Your task to perform on an android device: clear all cookies in the chrome app Image 0: 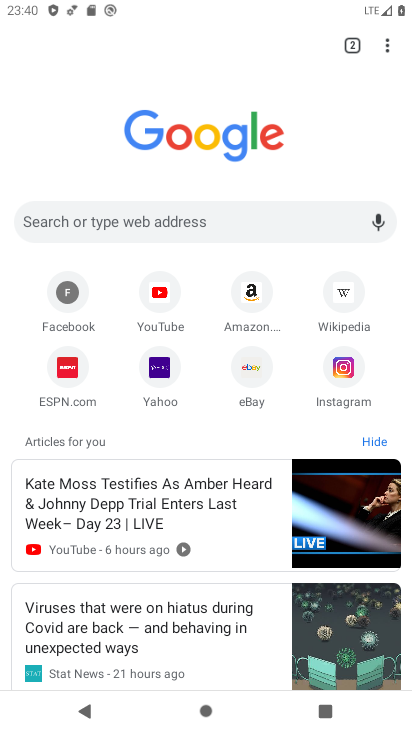
Step 0: click (389, 44)
Your task to perform on an android device: clear all cookies in the chrome app Image 1: 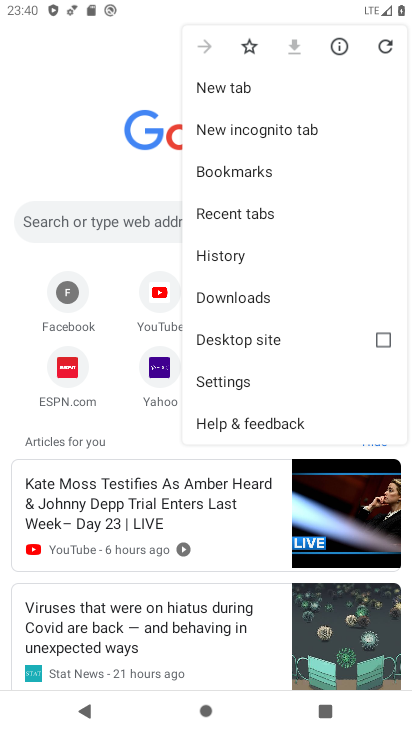
Step 1: click (232, 381)
Your task to perform on an android device: clear all cookies in the chrome app Image 2: 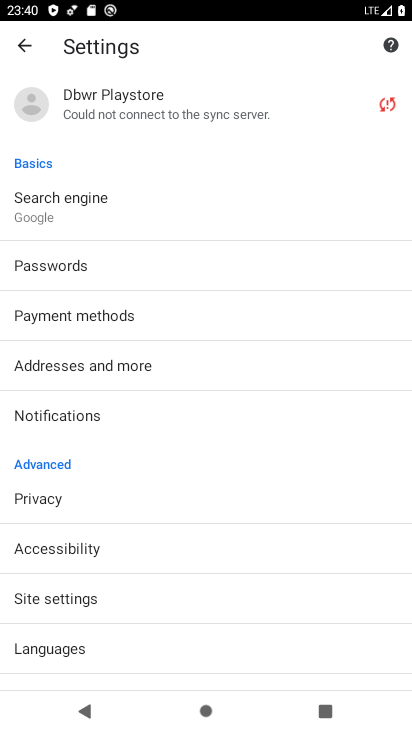
Step 2: click (45, 491)
Your task to perform on an android device: clear all cookies in the chrome app Image 3: 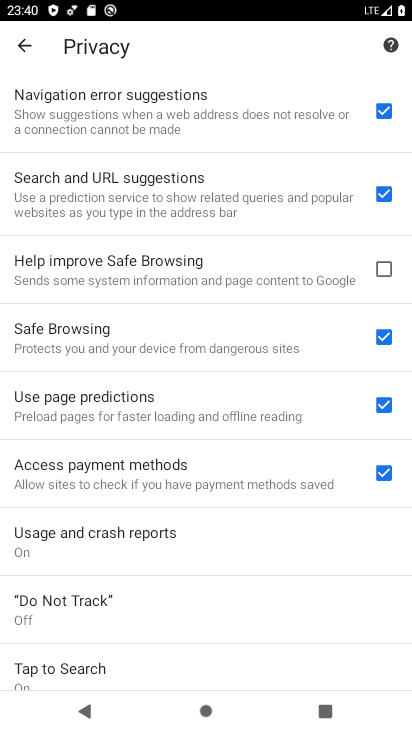
Step 3: drag from (247, 577) to (205, 65)
Your task to perform on an android device: clear all cookies in the chrome app Image 4: 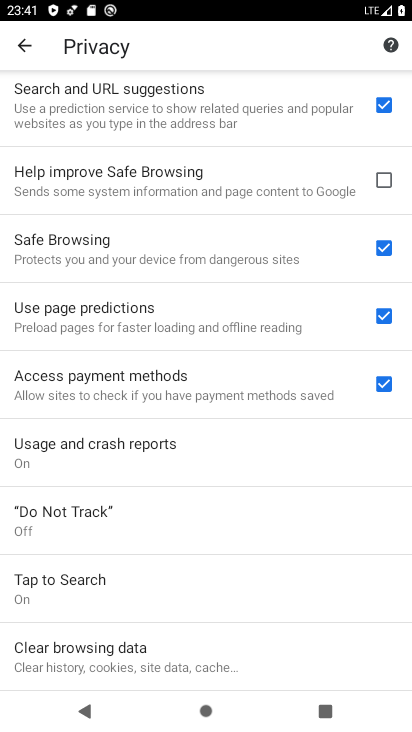
Step 4: click (81, 649)
Your task to perform on an android device: clear all cookies in the chrome app Image 5: 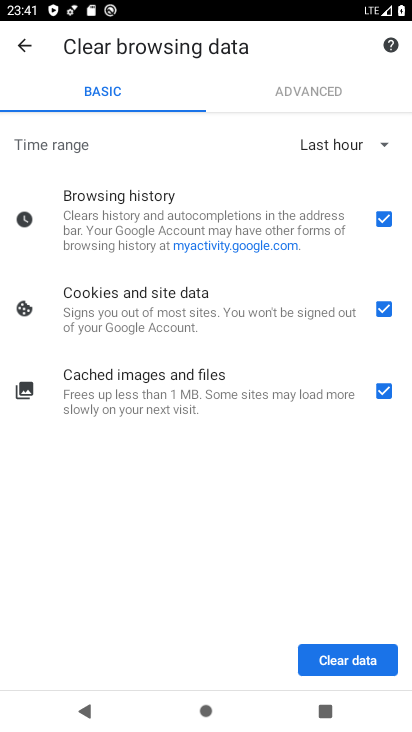
Step 5: click (380, 388)
Your task to perform on an android device: clear all cookies in the chrome app Image 6: 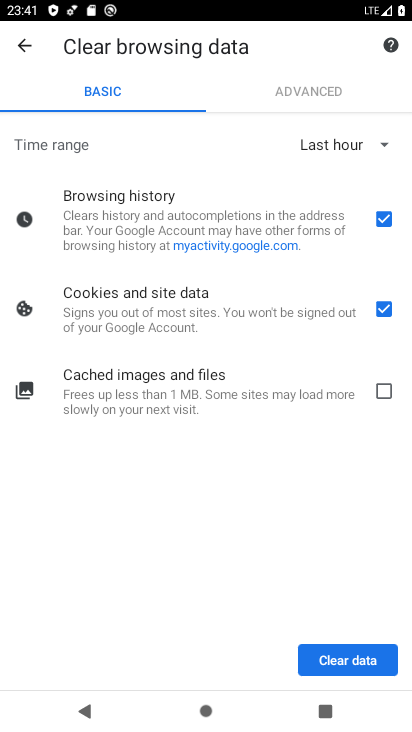
Step 6: click (380, 208)
Your task to perform on an android device: clear all cookies in the chrome app Image 7: 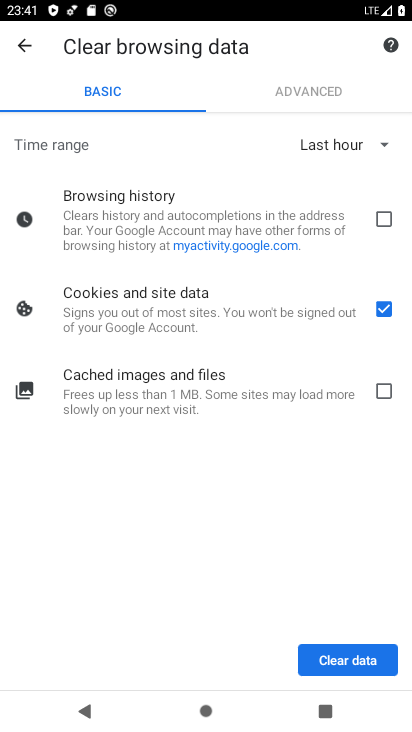
Step 7: click (345, 650)
Your task to perform on an android device: clear all cookies in the chrome app Image 8: 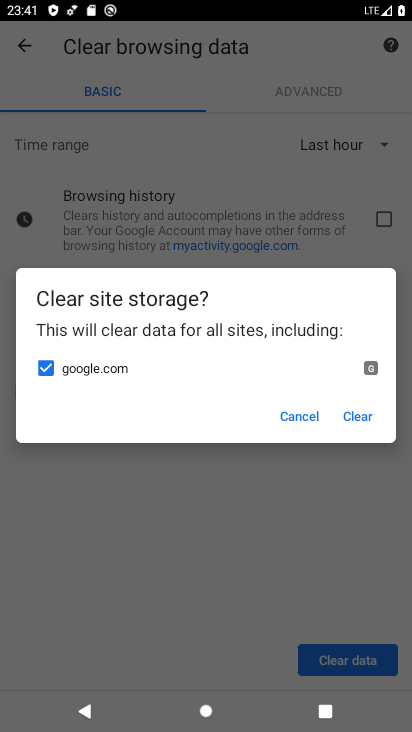
Step 8: click (349, 410)
Your task to perform on an android device: clear all cookies in the chrome app Image 9: 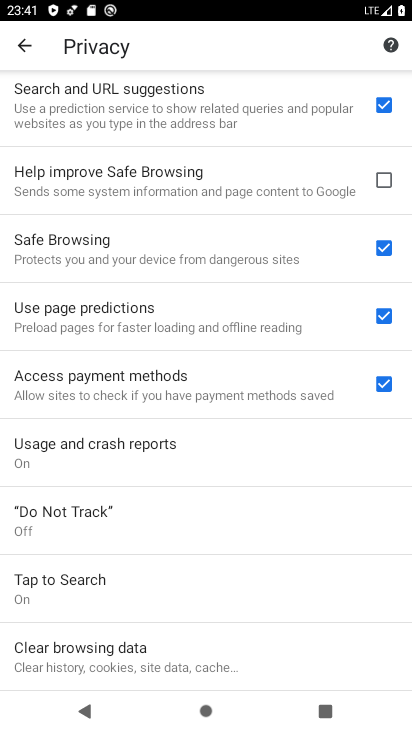
Step 9: task complete